Your task to perform on an android device: Clear the shopping cart on ebay. Search for razer blackwidow on ebay, select the first entry, and add it to the cart. Image 0: 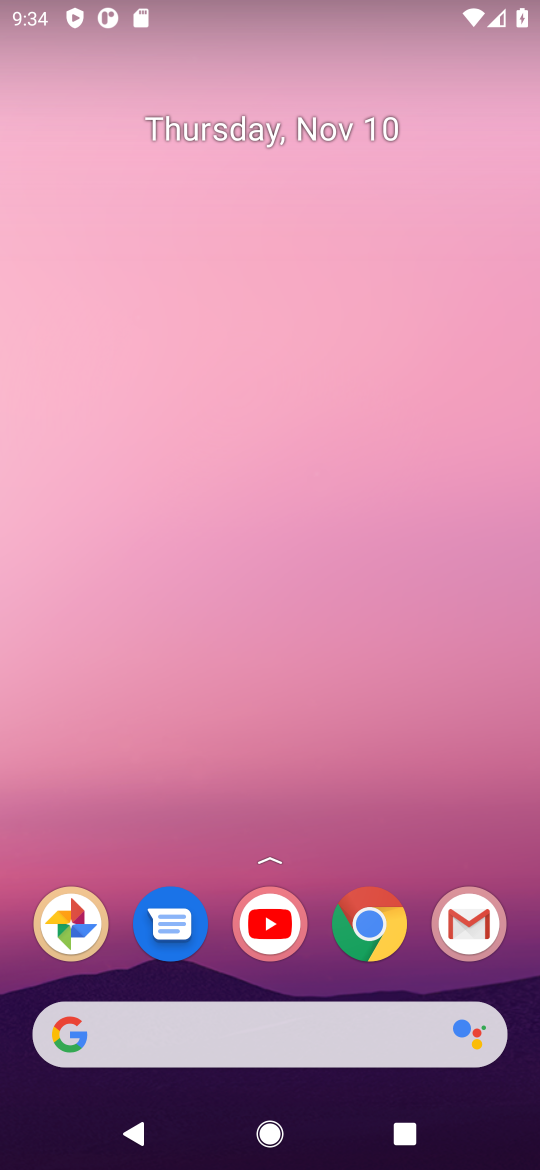
Step 0: click (367, 935)
Your task to perform on an android device: Clear the shopping cart on ebay. Search for razer blackwidow on ebay, select the first entry, and add it to the cart. Image 1: 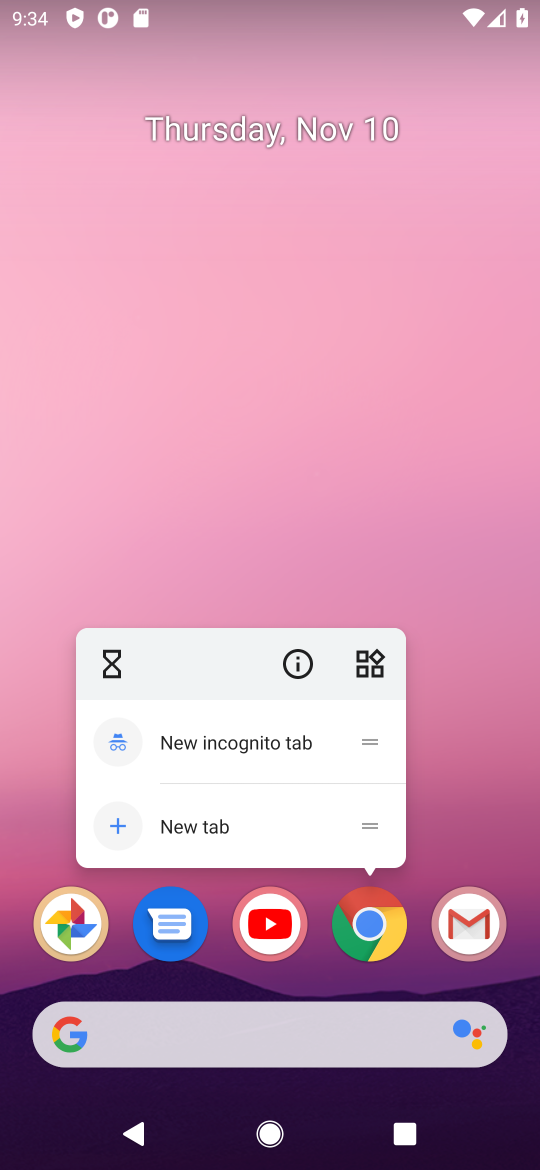
Step 1: click (367, 935)
Your task to perform on an android device: Clear the shopping cart on ebay. Search for razer blackwidow on ebay, select the first entry, and add it to the cart. Image 2: 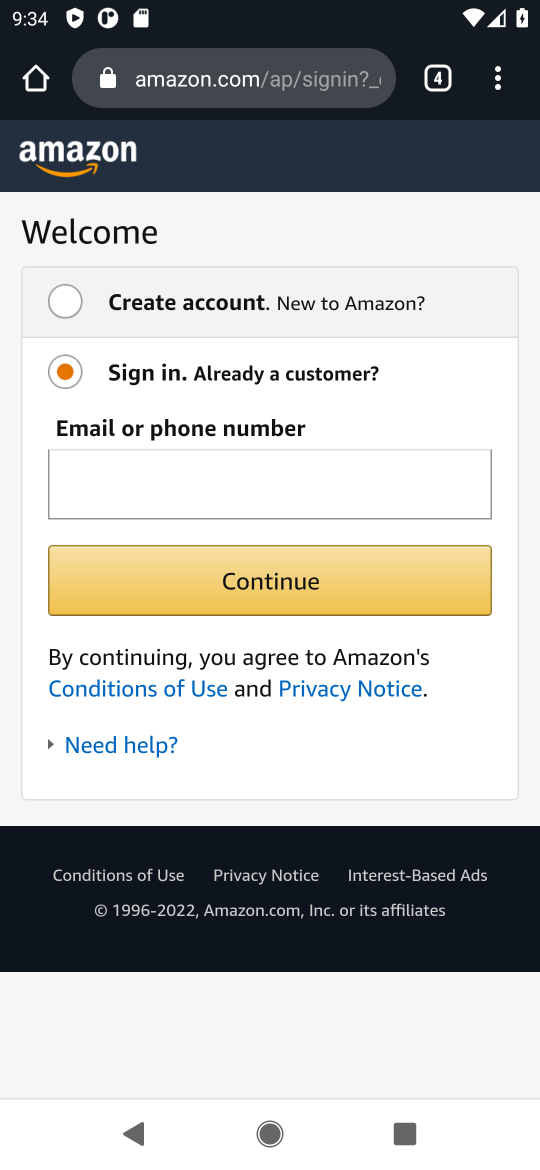
Step 2: click (180, 91)
Your task to perform on an android device: Clear the shopping cart on ebay. Search for razer blackwidow on ebay, select the first entry, and add it to the cart. Image 3: 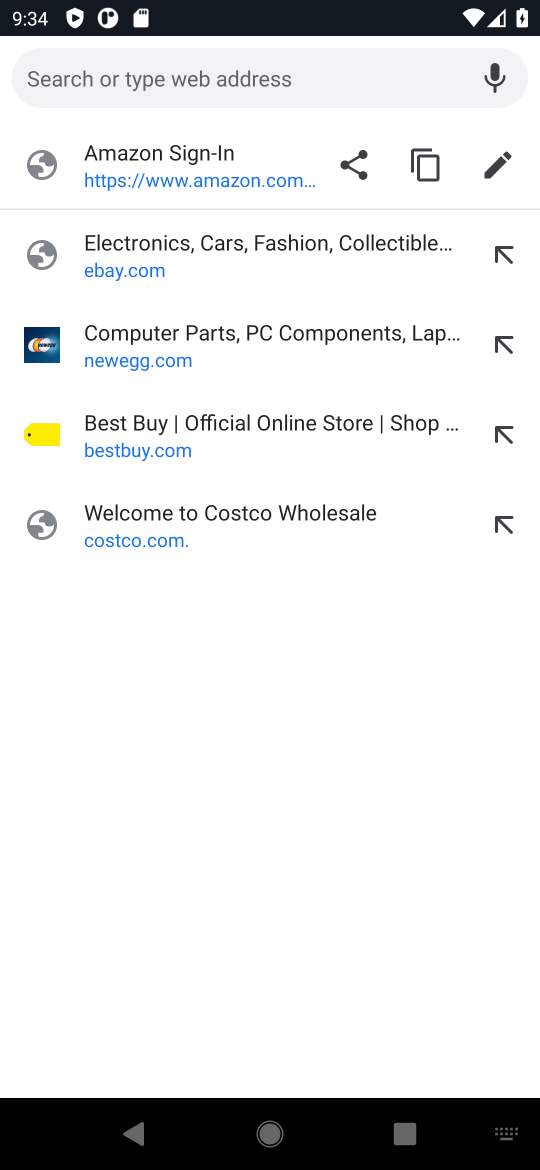
Step 3: click (108, 278)
Your task to perform on an android device: Clear the shopping cart on ebay. Search for razer blackwidow on ebay, select the first entry, and add it to the cart. Image 4: 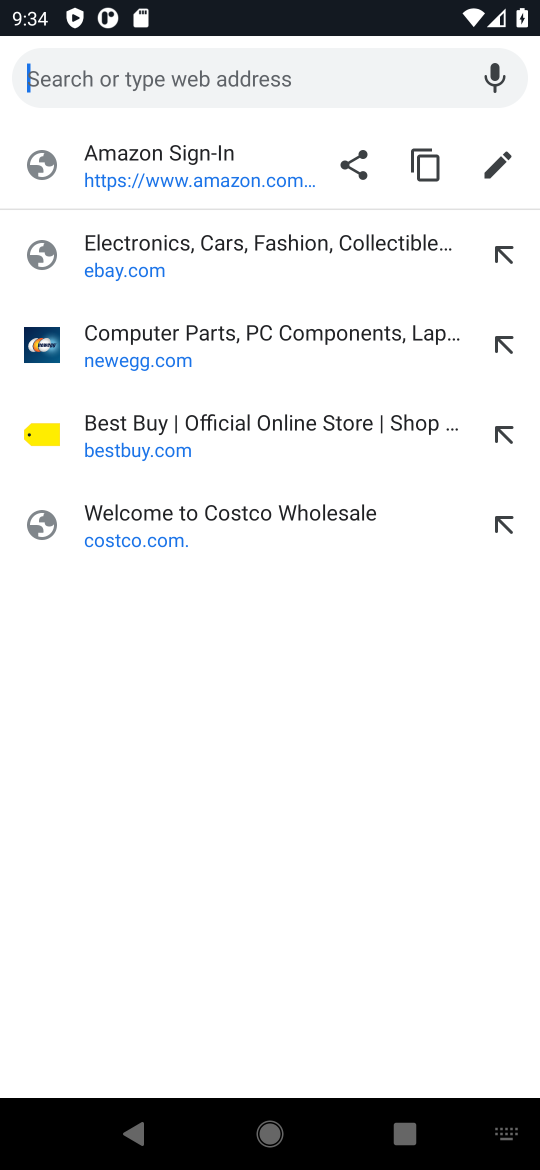
Step 4: click (126, 268)
Your task to perform on an android device: Clear the shopping cart on ebay. Search for razer blackwidow on ebay, select the first entry, and add it to the cart. Image 5: 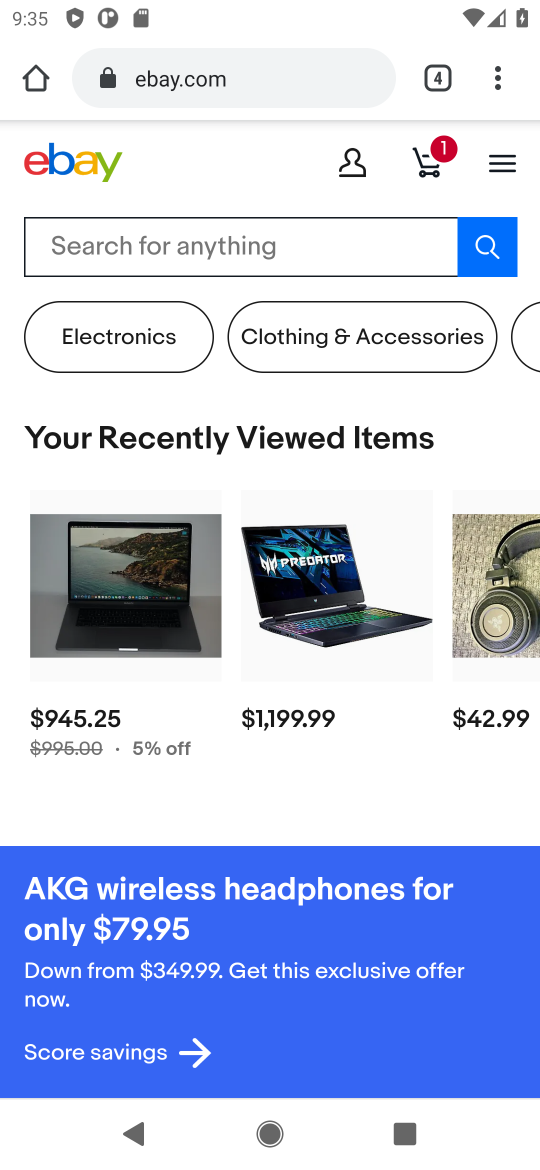
Step 5: click (418, 171)
Your task to perform on an android device: Clear the shopping cart on ebay. Search for razer blackwidow on ebay, select the first entry, and add it to the cart. Image 6: 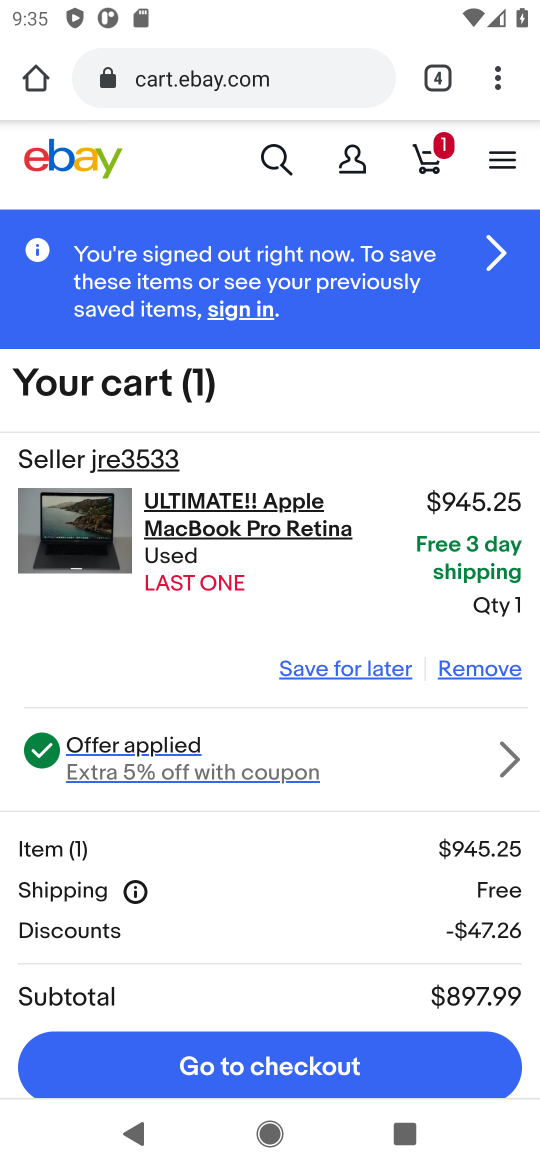
Step 6: click (485, 672)
Your task to perform on an android device: Clear the shopping cart on ebay. Search for razer blackwidow on ebay, select the first entry, and add it to the cart. Image 7: 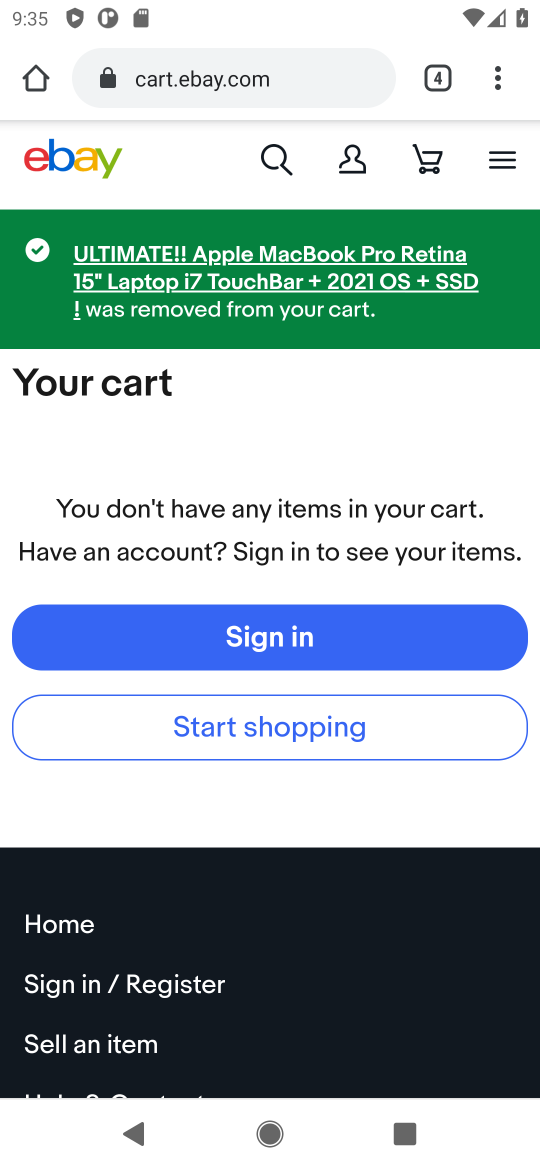
Step 7: click (276, 168)
Your task to perform on an android device: Clear the shopping cart on ebay. Search for razer blackwidow on ebay, select the first entry, and add it to the cart. Image 8: 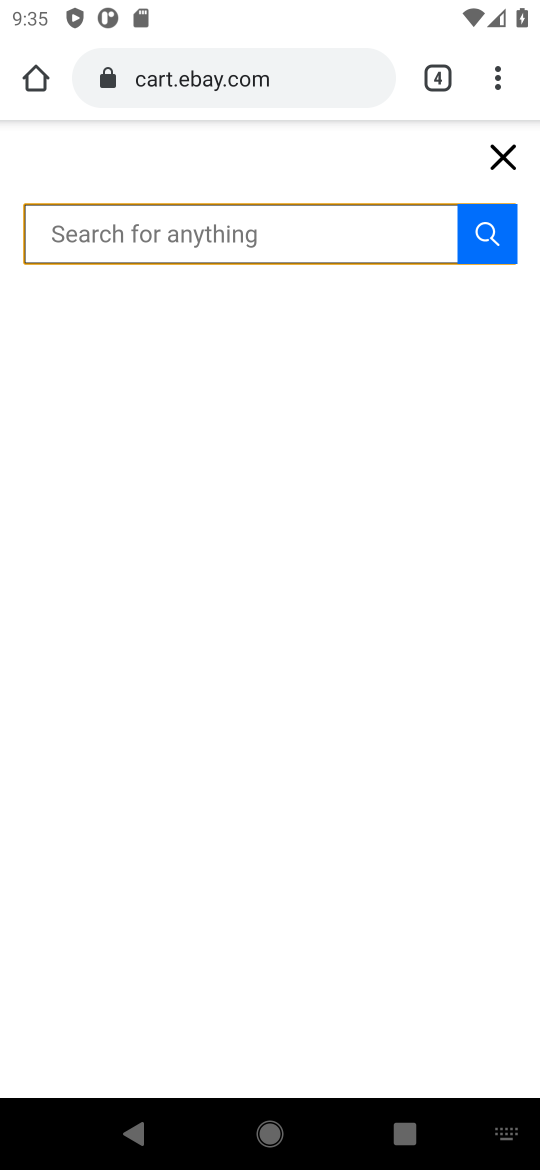
Step 8: type "razer blackwidow"
Your task to perform on an android device: Clear the shopping cart on ebay. Search for razer blackwidow on ebay, select the first entry, and add it to the cart. Image 9: 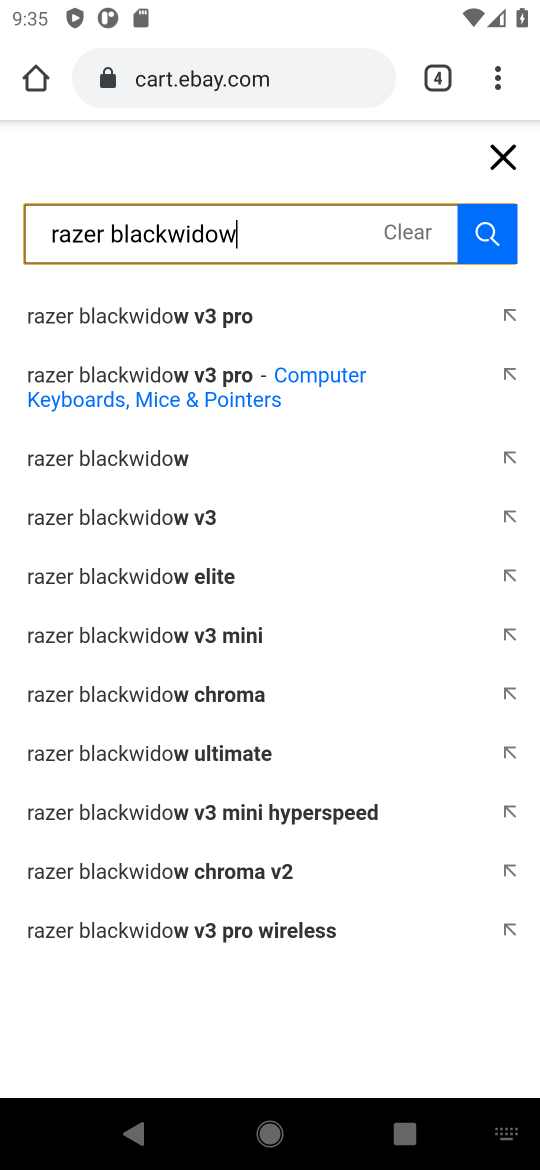
Step 9: click (96, 466)
Your task to perform on an android device: Clear the shopping cart on ebay. Search for razer blackwidow on ebay, select the first entry, and add it to the cart. Image 10: 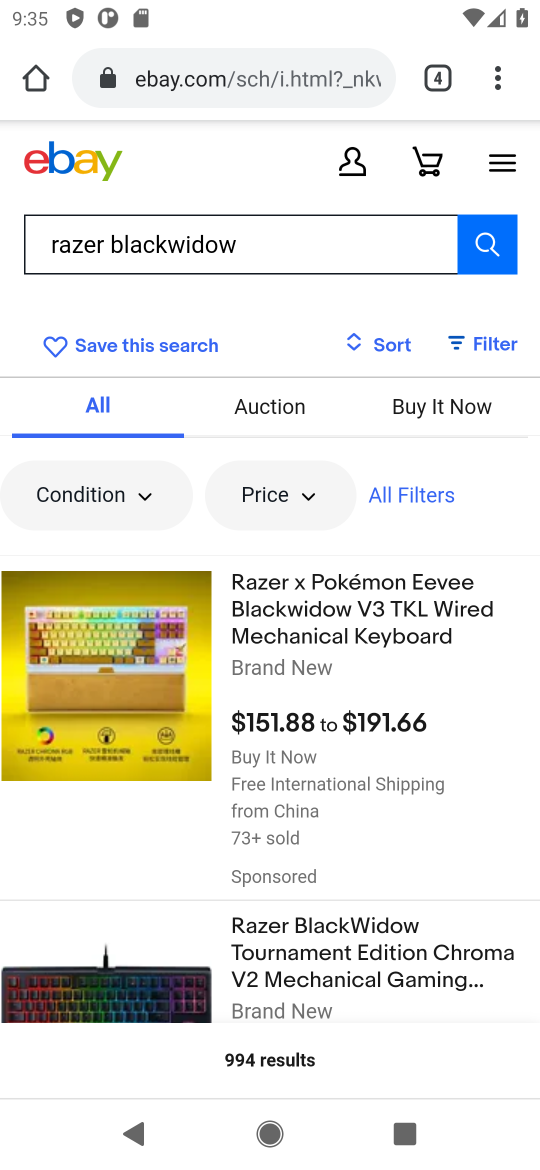
Step 10: click (153, 704)
Your task to perform on an android device: Clear the shopping cart on ebay. Search for razer blackwidow on ebay, select the first entry, and add it to the cart. Image 11: 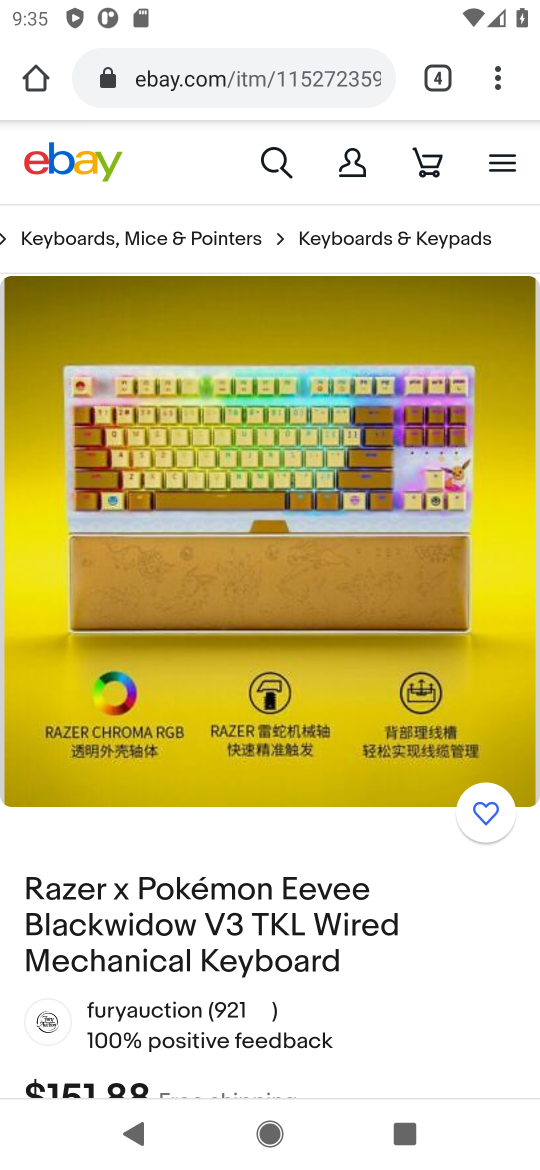
Step 11: drag from (228, 838) to (231, 614)
Your task to perform on an android device: Clear the shopping cart on ebay. Search for razer blackwidow on ebay, select the first entry, and add it to the cart. Image 12: 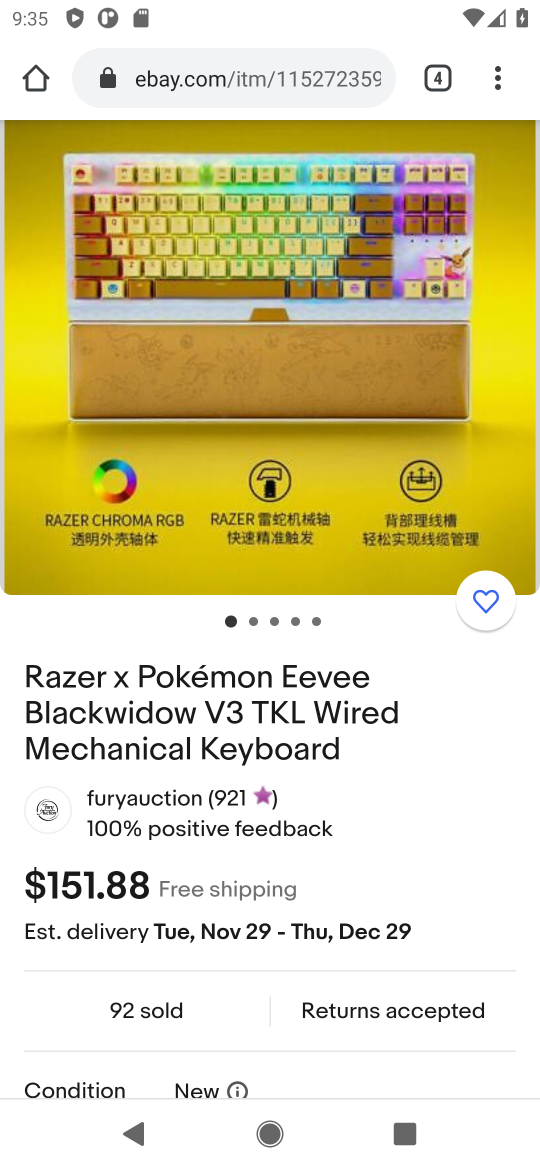
Step 12: drag from (214, 760) to (177, 476)
Your task to perform on an android device: Clear the shopping cart on ebay. Search for razer blackwidow on ebay, select the first entry, and add it to the cart. Image 13: 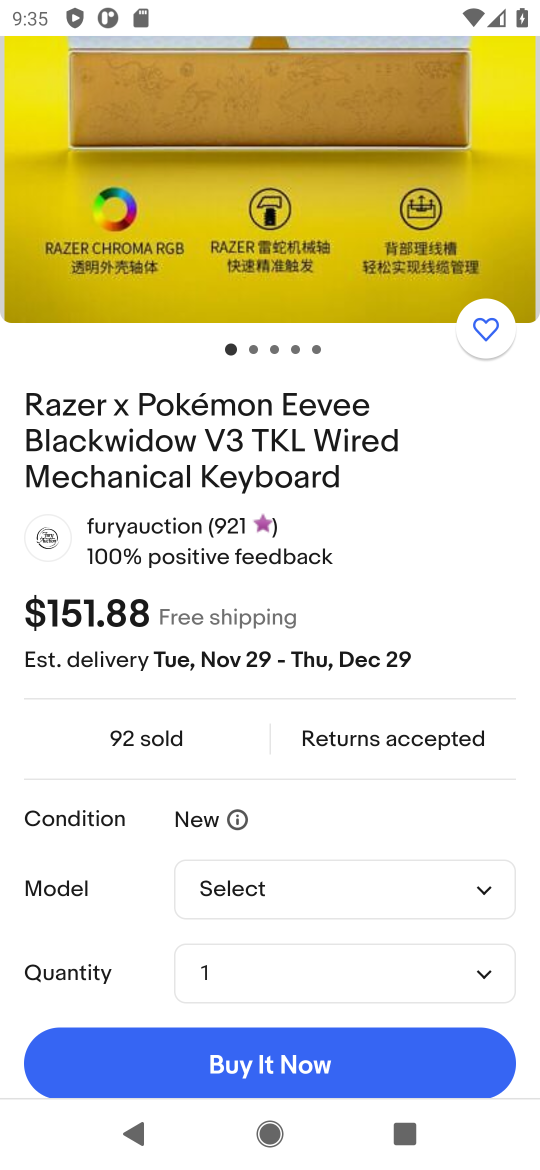
Step 13: drag from (149, 761) to (159, 405)
Your task to perform on an android device: Clear the shopping cart on ebay. Search for razer blackwidow on ebay, select the first entry, and add it to the cart. Image 14: 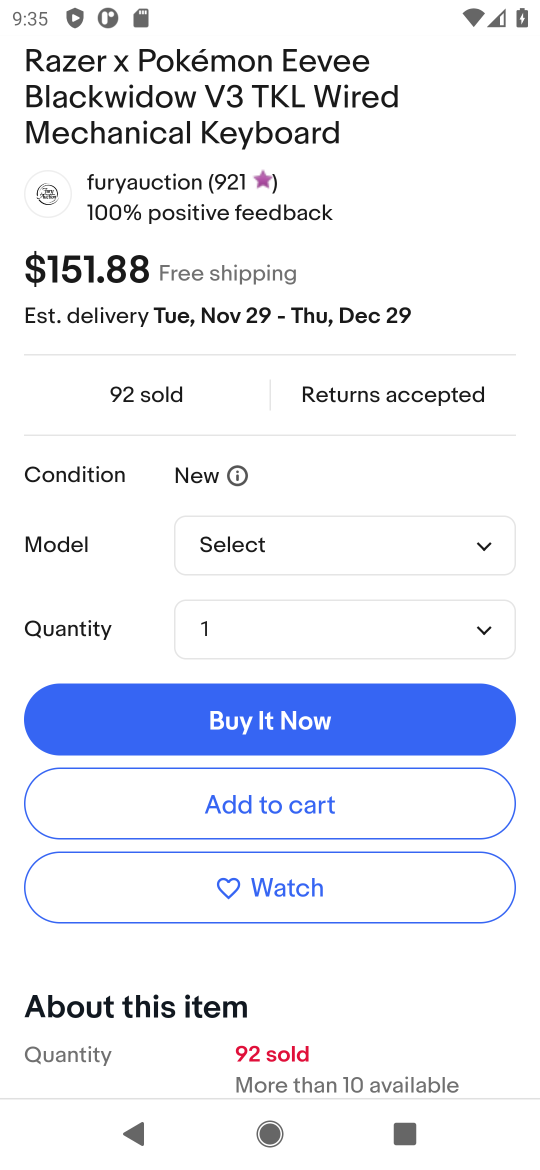
Step 14: click (201, 802)
Your task to perform on an android device: Clear the shopping cart on ebay. Search for razer blackwidow on ebay, select the first entry, and add it to the cart. Image 15: 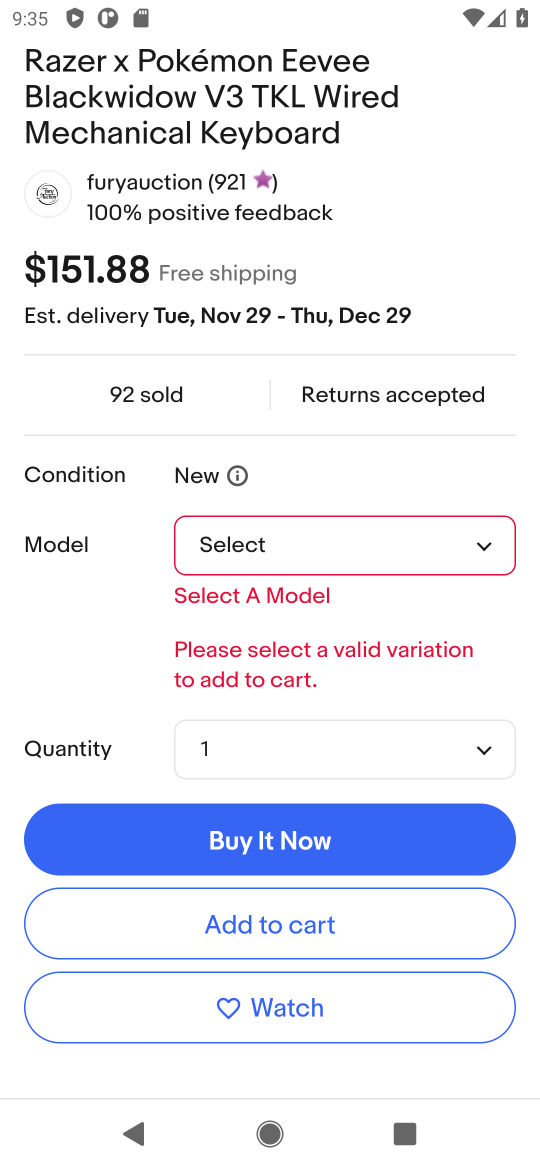
Step 15: click (488, 549)
Your task to perform on an android device: Clear the shopping cart on ebay. Search for razer blackwidow on ebay, select the first entry, and add it to the cart. Image 16: 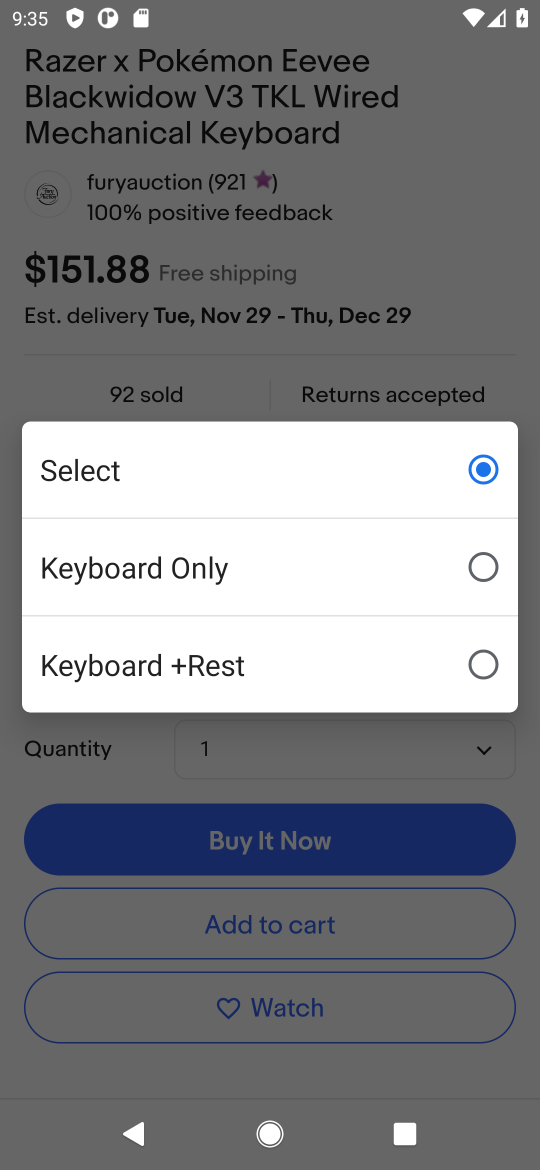
Step 16: click (191, 575)
Your task to perform on an android device: Clear the shopping cart on ebay. Search for razer blackwidow on ebay, select the first entry, and add it to the cart. Image 17: 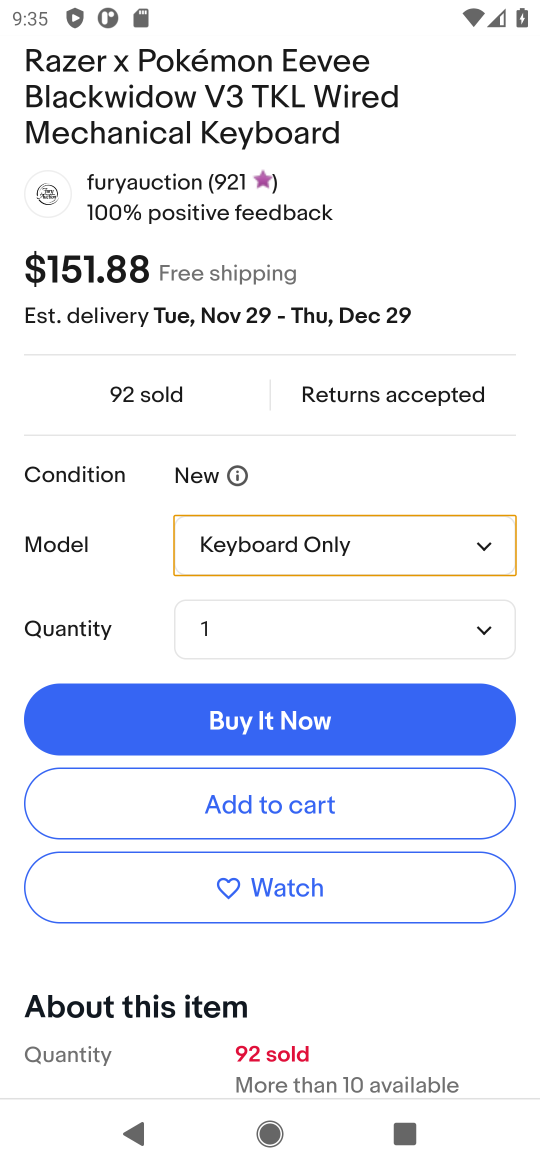
Step 17: click (272, 806)
Your task to perform on an android device: Clear the shopping cart on ebay. Search for razer blackwidow on ebay, select the first entry, and add it to the cart. Image 18: 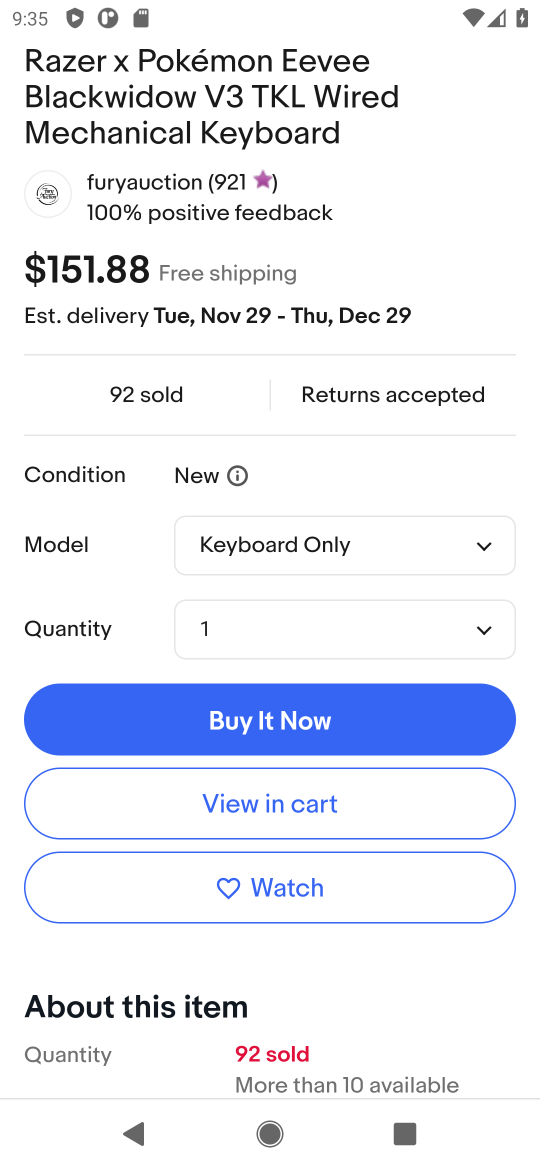
Step 18: task complete